Your task to perform on an android device: Open sound settings Image 0: 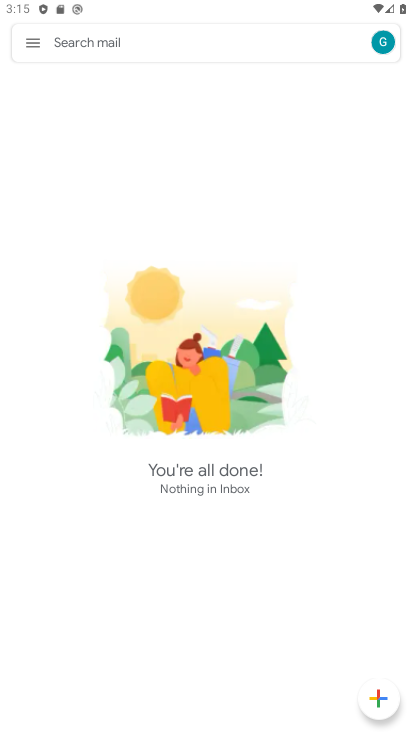
Step 0: press home button
Your task to perform on an android device: Open sound settings Image 1: 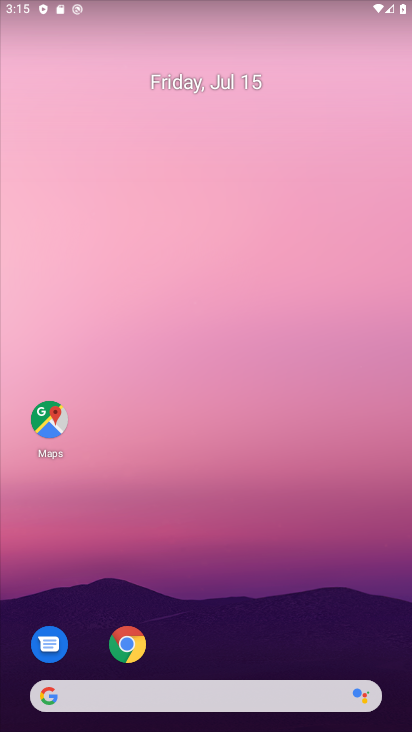
Step 1: drag from (332, 634) to (197, 38)
Your task to perform on an android device: Open sound settings Image 2: 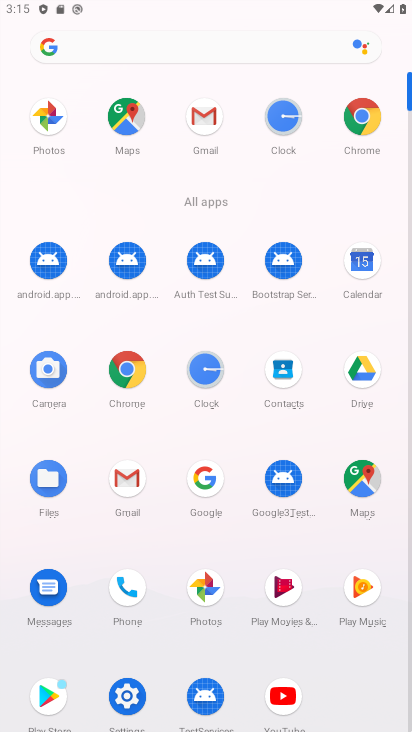
Step 2: click (114, 699)
Your task to perform on an android device: Open sound settings Image 3: 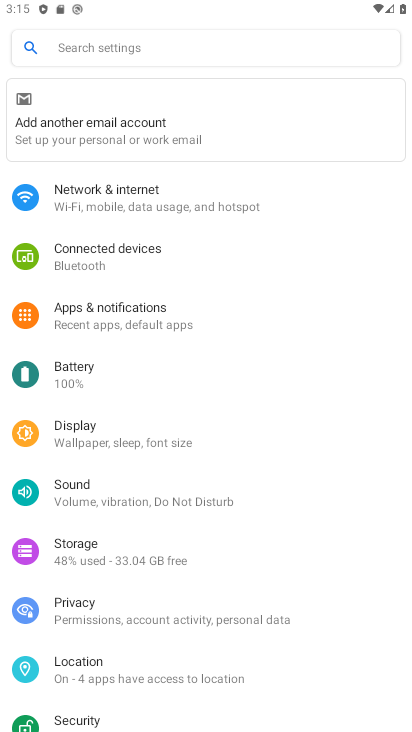
Step 3: click (206, 501)
Your task to perform on an android device: Open sound settings Image 4: 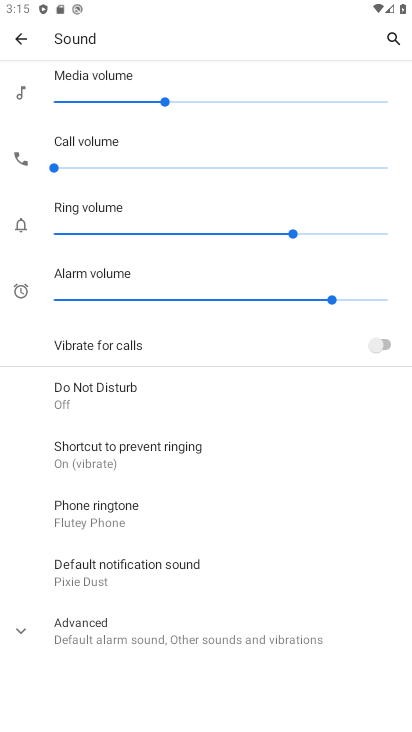
Step 4: task complete